Your task to perform on an android device: set the stopwatch Image 0: 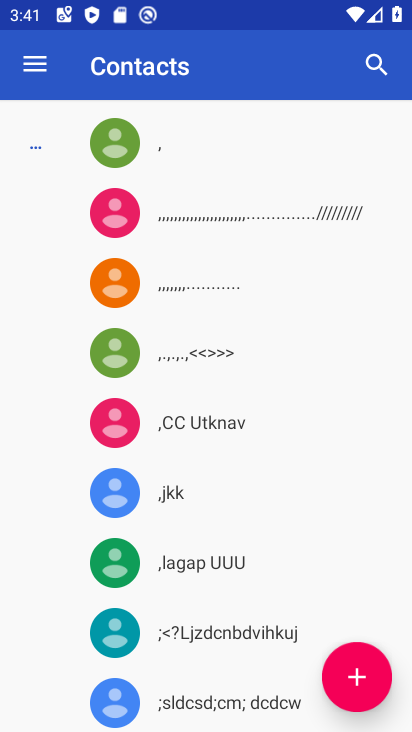
Step 0: press home button
Your task to perform on an android device: set the stopwatch Image 1: 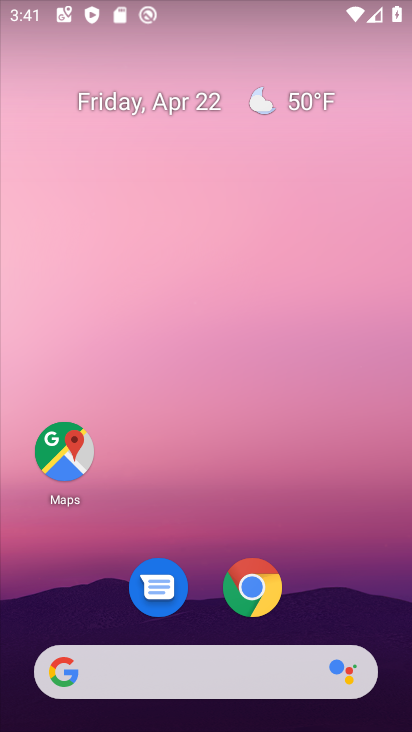
Step 1: drag from (342, 468) to (347, 5)
Your task to perform on an android device: set the stopwatch Image 2: 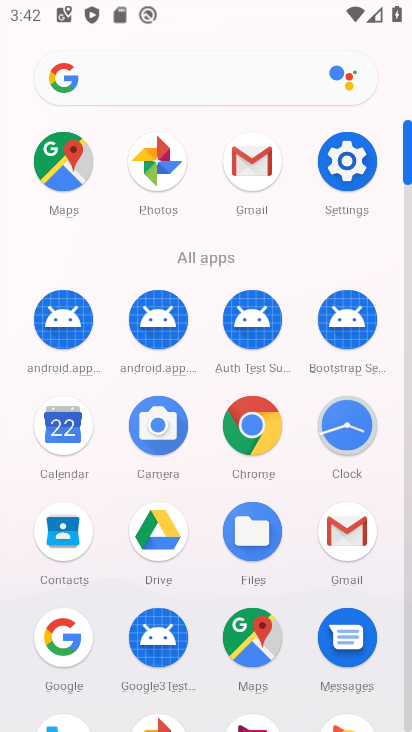
Step 2: click (339, 425)
Your task to perform on an android device: set the stopwatch Image 3: 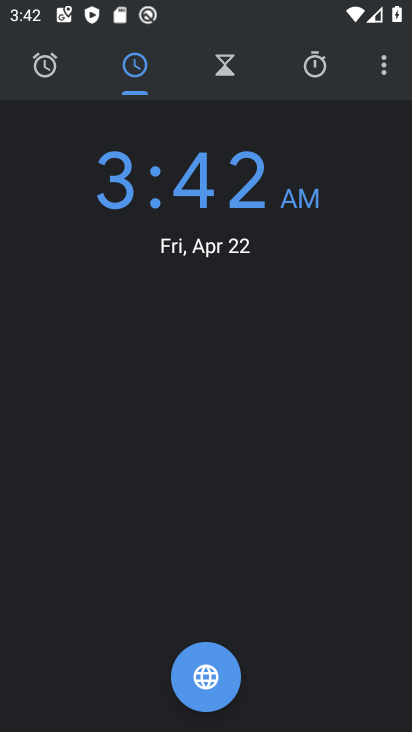
Step 3: click (319, 67)
Your task to perform on an android device: set the stopwatch Image 4: 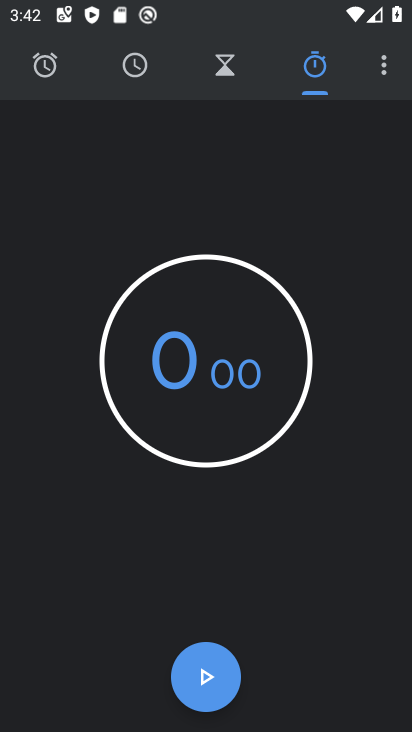
Step 4: click (211, 678)
Your task to perform on an android device: set the stopwatch Image 5: 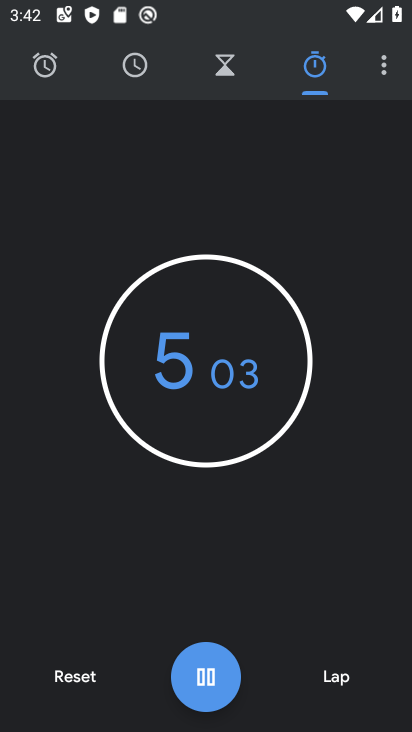
Step 5: click (198, 688)
Your task to perform on an android device: set the stopwatch Image 6: 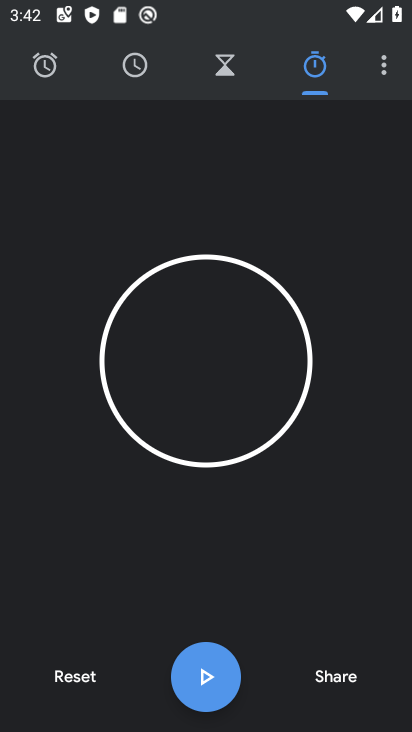
Step 6: task complete